Your task to perform on an android device: turn on the 24-hour format for clock Image 0: 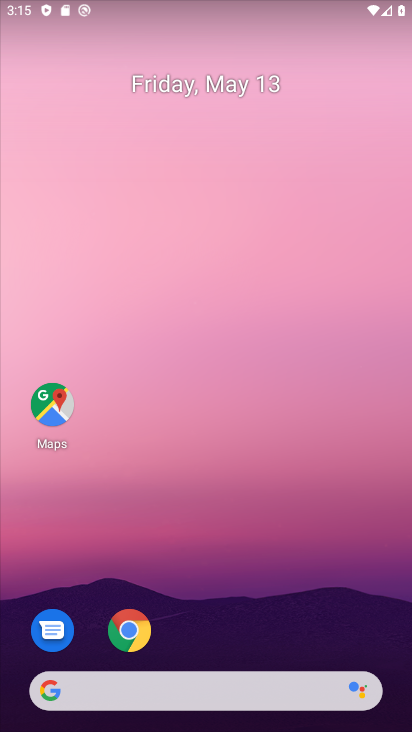
Step 0: drag from (202, 666) to (142, 127)
Your task to perform on an android device: turn on the 24-hour format for clock Image 1: 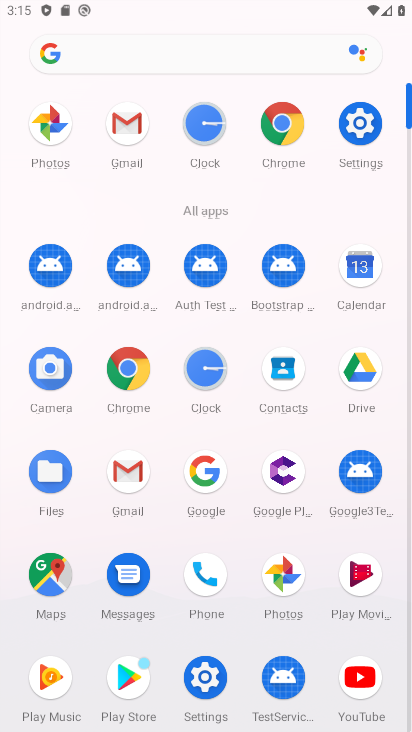
Step 1: click (203, 377)
Your task to perform on an android device: turn on the 24-hour format for clock Image 2: 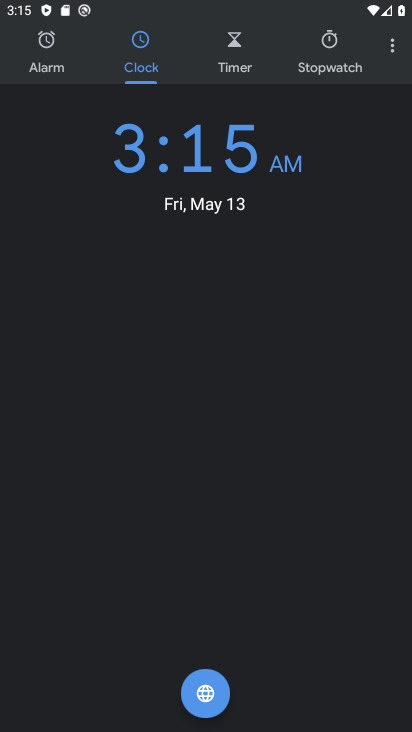
Step 2: click (387, 45)
Your task to perform on an android device: turn on the 24-hour format for clock Image 3: 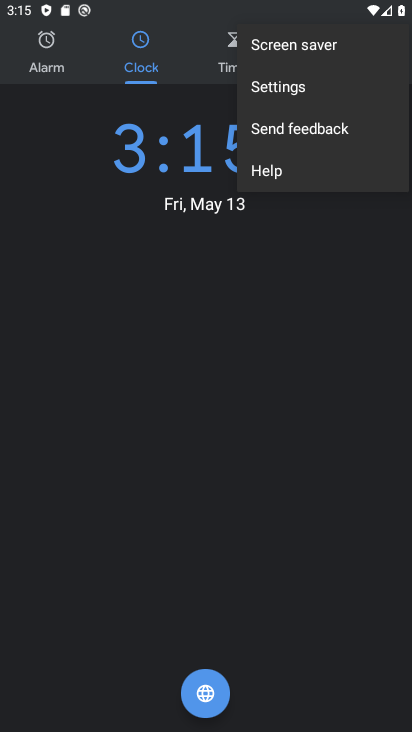
Step 3: click (300, 90)
Your task to perform on an android device: turn on the 24-hour format for clock Image 4: 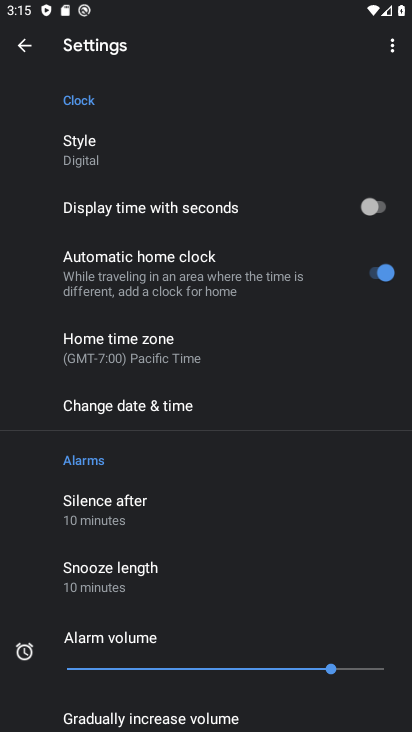
Step 4: click (234, 402)
Your task to perform on an android device: turn on the 24-hour format for clock Image 5: 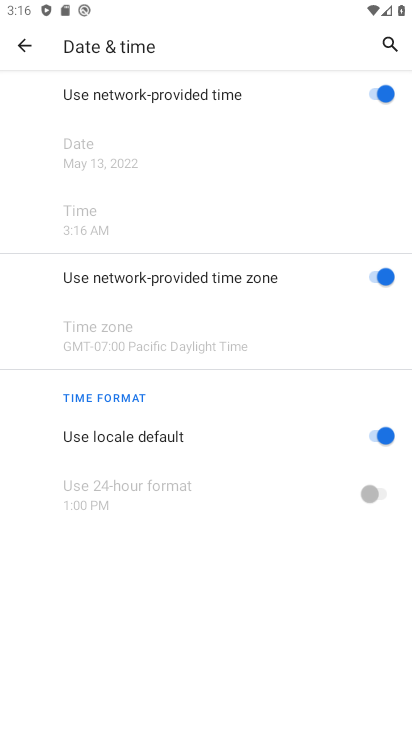
Step 5: click (379, 431)
Your task to perform on an android device: turn on the 24-hour format for clock Image 6: 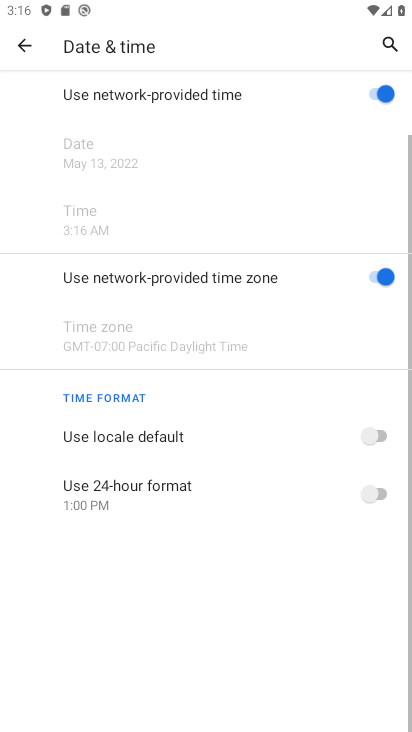
Step 6: click (382, 489)
Your task to perform on an android device: turn on the 24-hour format for clock Image 7: 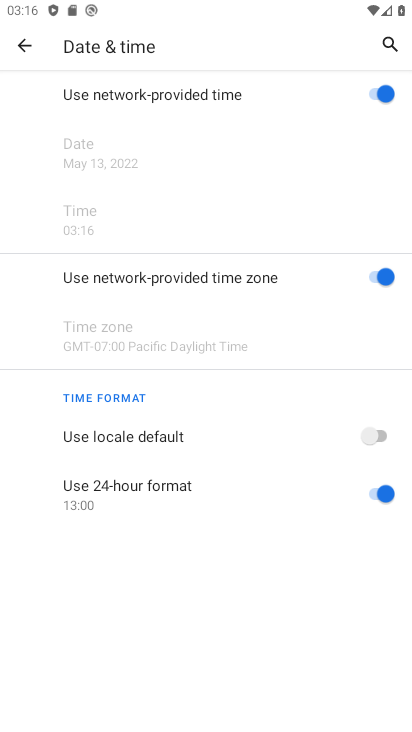
Step 7: task complete